Your task to perform on an android device: Open my contact list Image 0: 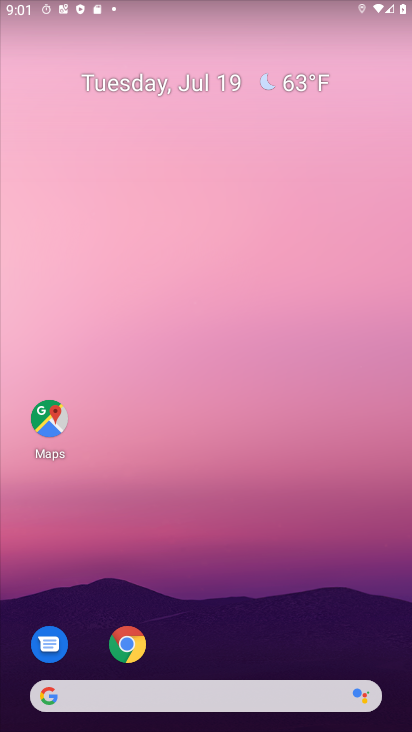
Step 0: drag from (244, 680) to (230, 325)
Your task to perform on an android device: Open my contact list Image 1: 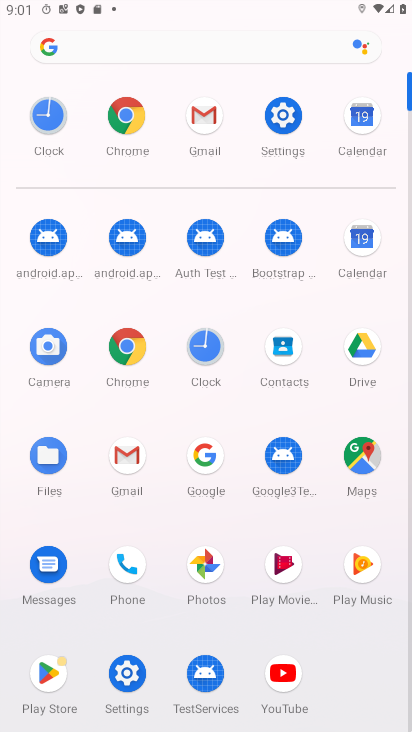
Step 1: click (284, 365)
Your task to perform on an android device: Open my contact list Image 2: 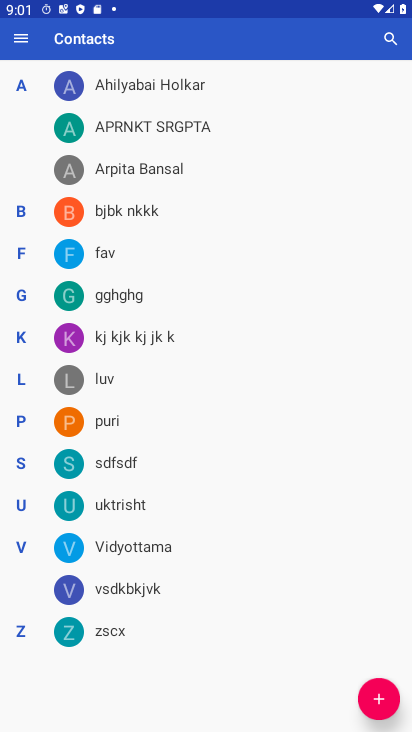
Step 2: task complete